Your task to perform on an android device: toggle sleep mode Image 0: 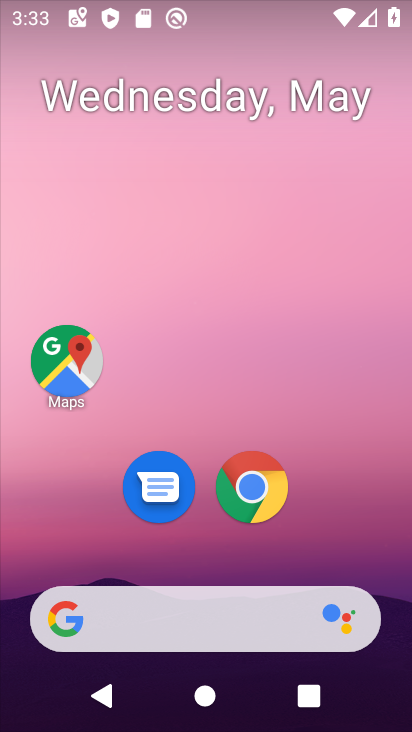
Step 0: drag from (357, 512) to (275, 52)
Your task to perform on an android device: toggle sleep mode Image 1: 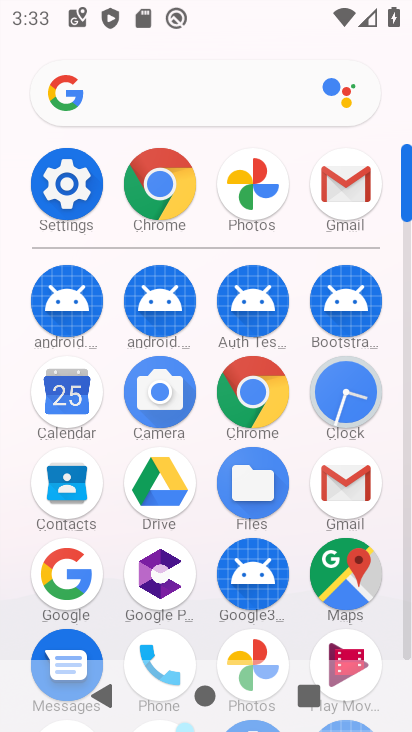
Step 1: click (69, 178)
Your task to perform on an android device: toggle sleep mode Image 2: 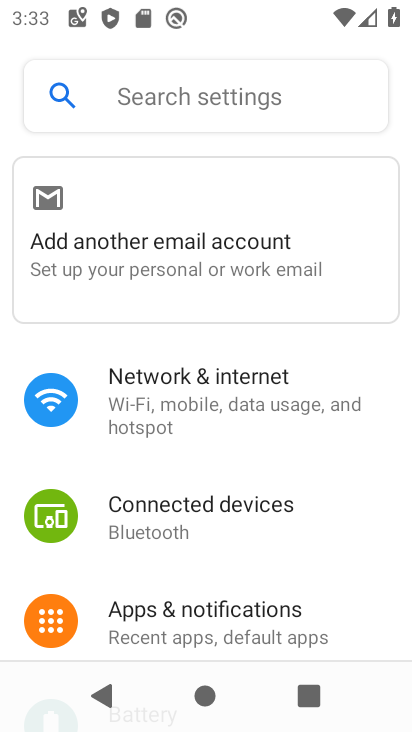
Step 2: drag from (321, 520) to (329, 201)
Your task to perform on an android device: toggle sleep mode Image 3: 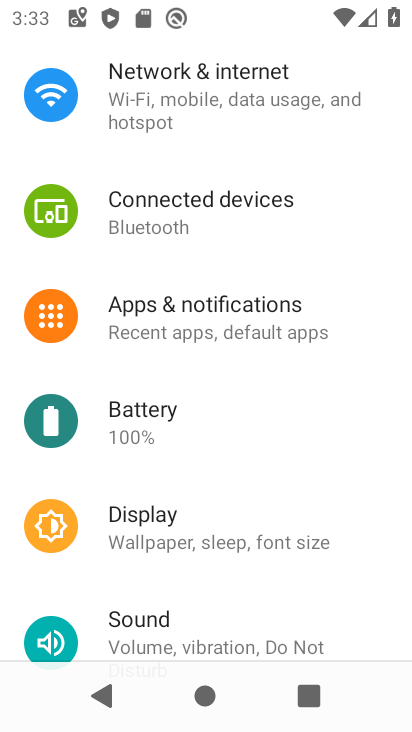
Step 3: drag from (307, 166) to (305, 531)
Your task to perform on an android device: toggle sleep mode Image 4: 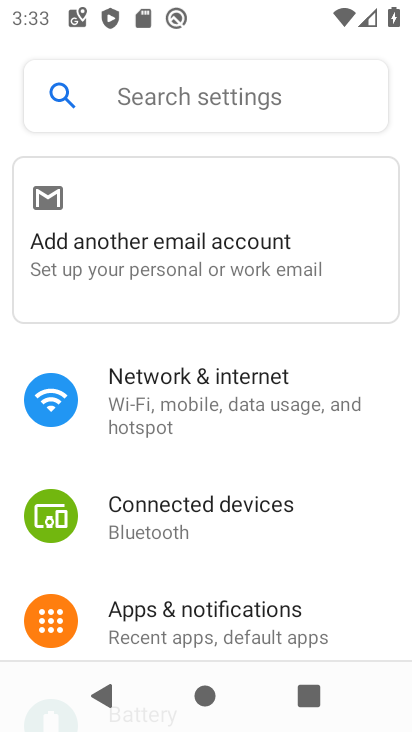
Step 4: drag from (296, 561) to (296, 222)
Your task to perform on an android device: toggle sleep mode Image 5: 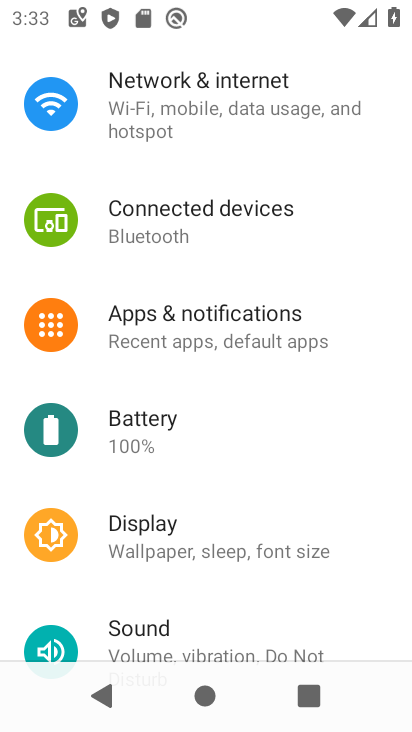
Step 5: drag from (280, 188) to (286, 543)
Your task to perform on an android device: toggle sleep mode Image 6: 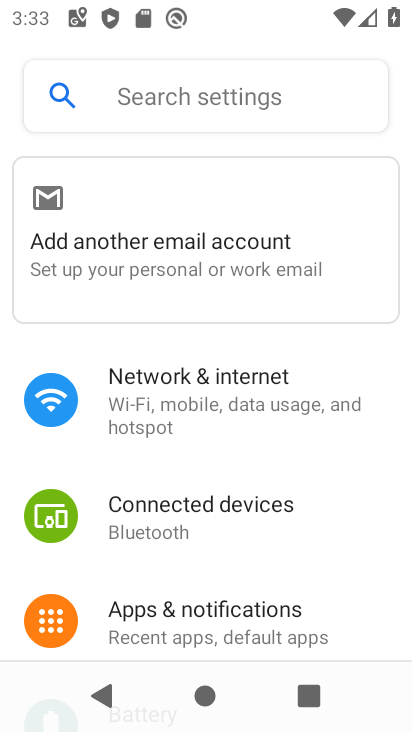
Step 6: click (251, 406)
Your task to perform on an android device: toggle sleep mode Image 7: 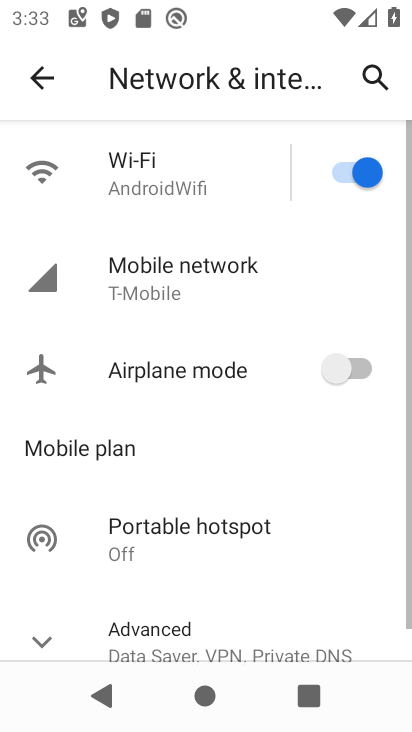
Step 7: click (38, 645)
Your task to perform on an android device: toggle sleep mode Image 8: 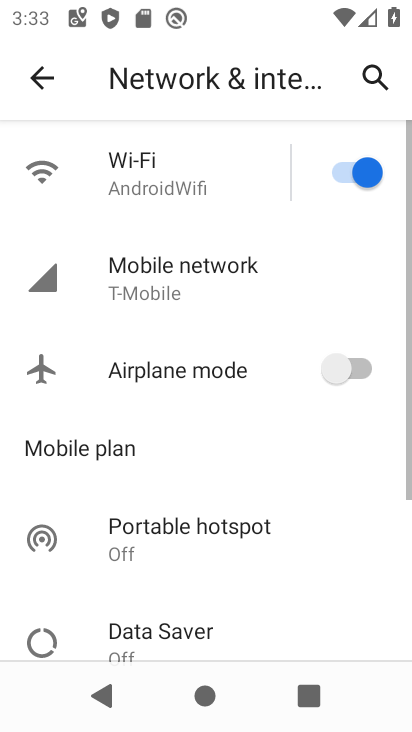
Step 8: task complete